Your task to perform on an android device: Open the stopwatch Image 0: 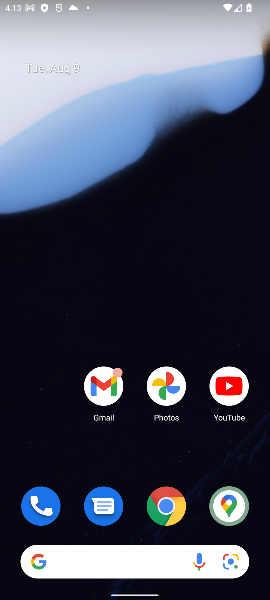
Step 0: drag from (71, 557) to (119, 0)
Your task to perform on an android device: Open the stopwatch Image 1: 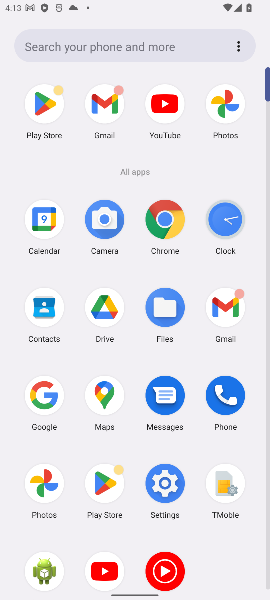
Step 1: click (220, 219)
Your task to perform on an android device: Open the stopwatch Image 2: 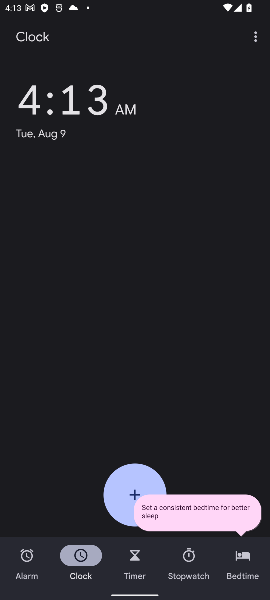
Step 2: click (194, 567)
Your task to perform on an android device: Open the stopwatch Image 3: 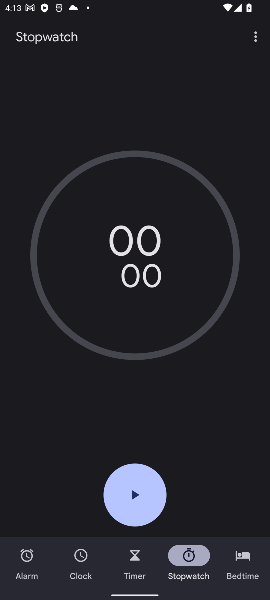
Step 3: click (129, 506)
Your task to perform on an android device: Open the stopwatch Image 4: 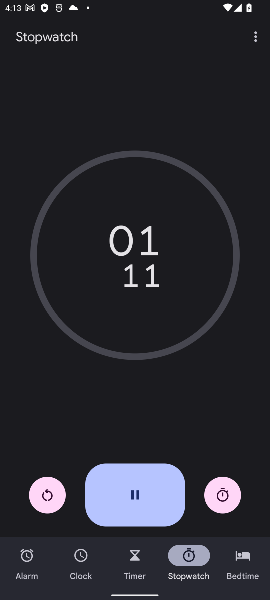
Step 4: task complete